Your task to perform on an android device: What's a good restaurant in Seattle? Image 0: 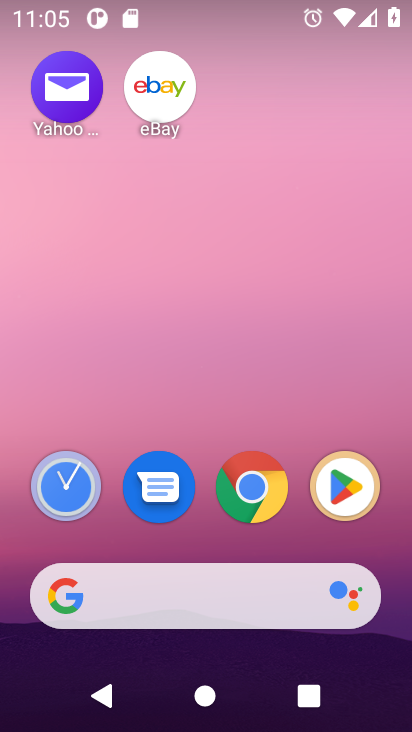
Step 0: drag from (202, 524) to (187, 52)
Your task to perform on an android device: What's a good restaurant in Seattle? Image 1: 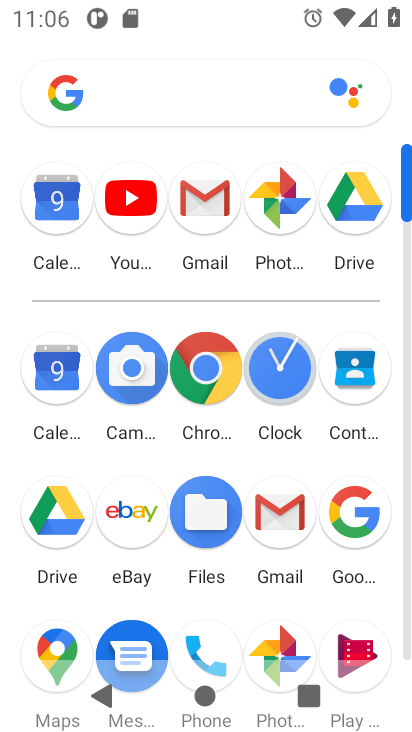
Step 1: click (357, 514)
Your task to perform on an android device: What's a good restaurant in Seattle? Image 2: 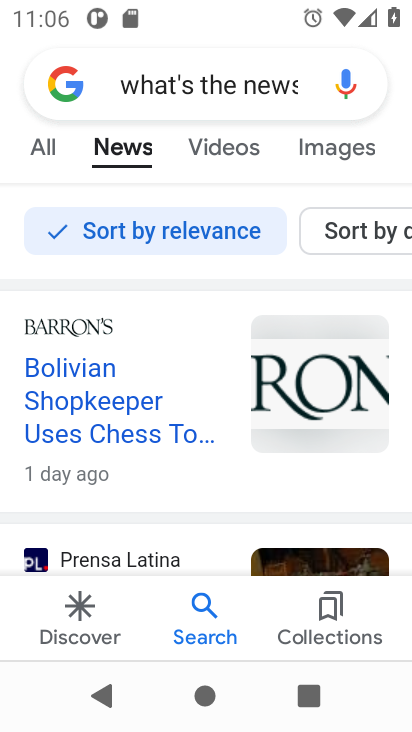
Step 2: click (228, 87)
Your task to perform on an android device: What's a good restaurant in Seattle? Image 3: 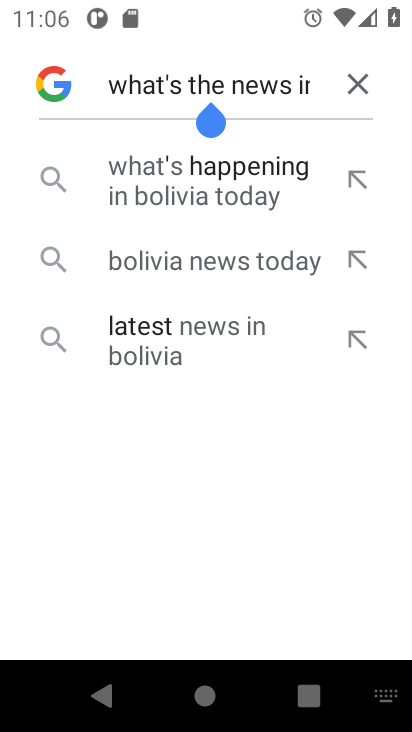
Step 3: click (362, 74)
Your task to perform on an android device: What's a good restaurant in Seattle? Image 4: 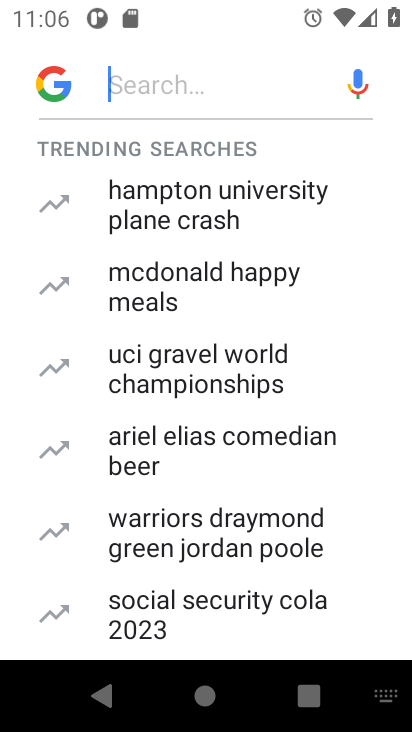
Step 4: type "What's a good restaurant in Seattle?"
Your task to perform on an android device: What's a good restaurant in Seattle? Image 5: 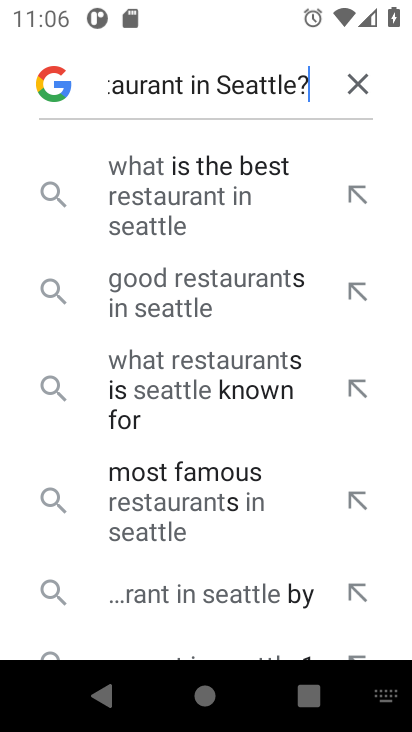
Step 5: type ""
Your task to perform on an android device: What's a good restaurant in Seattle? Image 6: 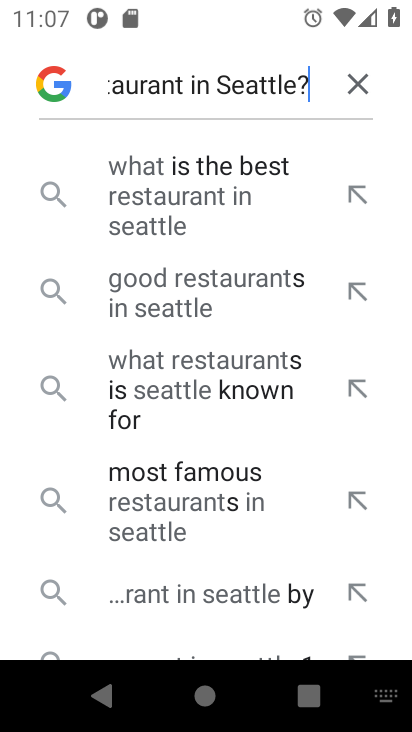
Step 6: click (190, 284)
Your task to perform on an android device: What's a good restaurant in Seattle? Image 7: 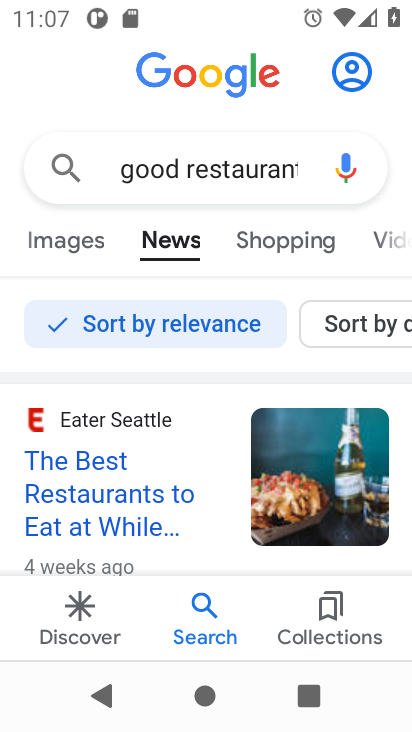
Step 7: click (41, 248)
Your task to perform on an android device: What's a good restaurant in Seattle? Image 8: 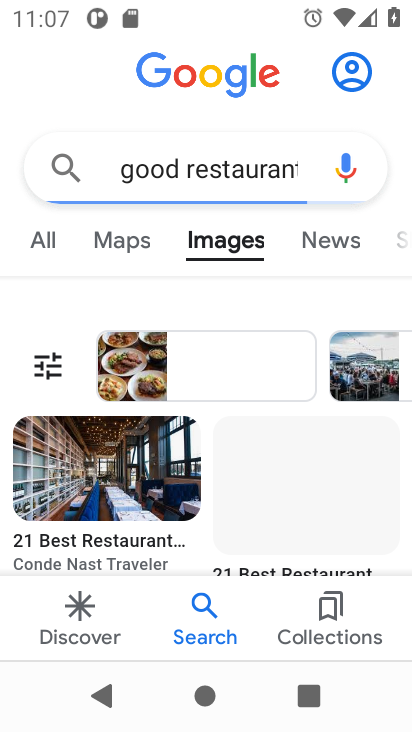
Step 8: click (44, 236)
Your task to perform on an android device: What's a good restaurant in Seattle? Image 9: 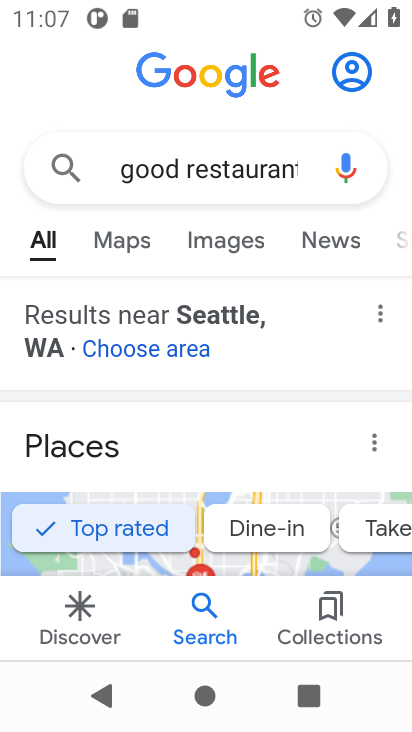
Step 9: task complete